Your task to perform on an android device: Open calendar and show me the second week of next month Image 0: 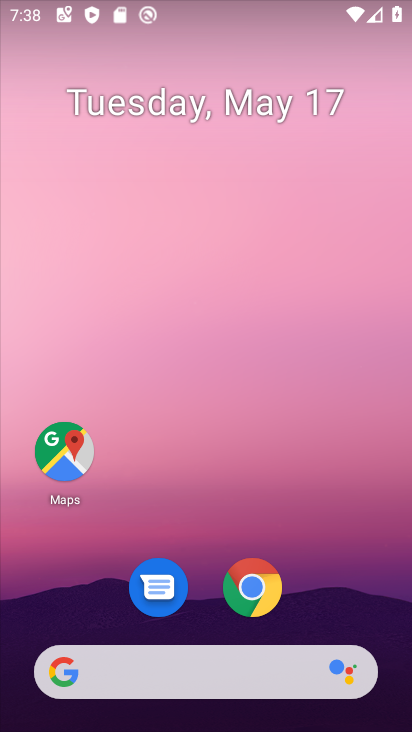
Step 0: drag from (207, 647) to (268, 148)
Your task to perform on an android device: Open calendar and show me the second week of next month Image 1: 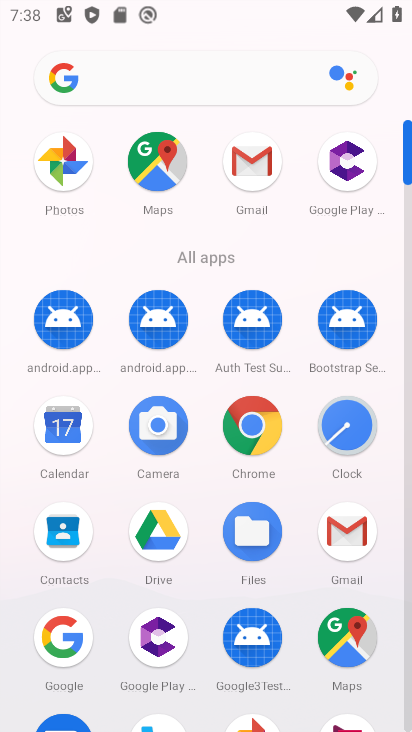
Step 1: click (53, 425)
Your task to perform on an android device: Open calendar and show me the second week of next month Image 2: 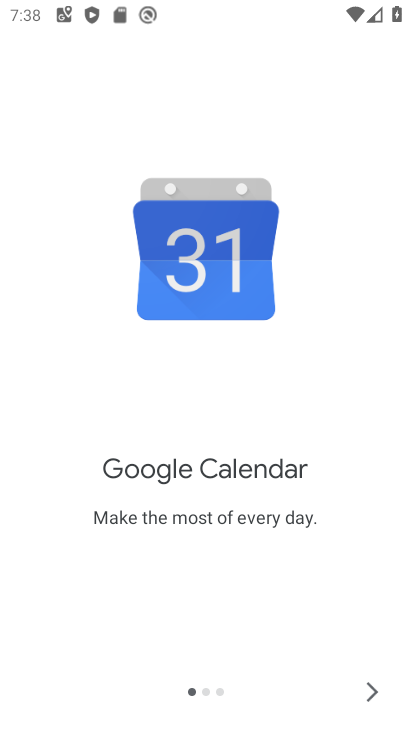
Step 2: click (368, 692)
Your task to perform on an android device: Open calendar and show me the second week of next month Image 3: 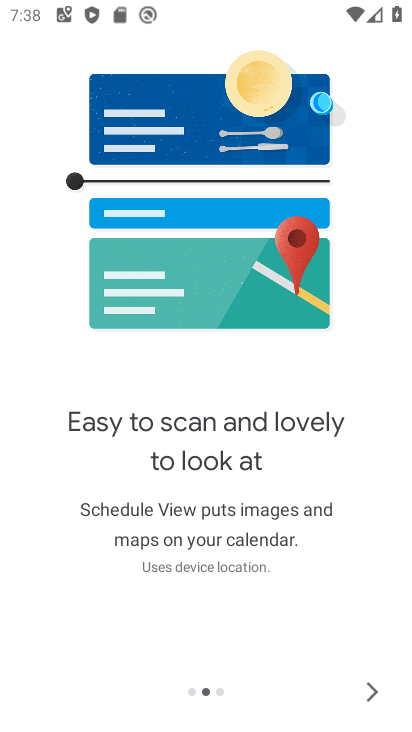
Step 3: click (368, 692)
Your task to perform on an android device: Open calendar and show me the second week of next month Image 4: 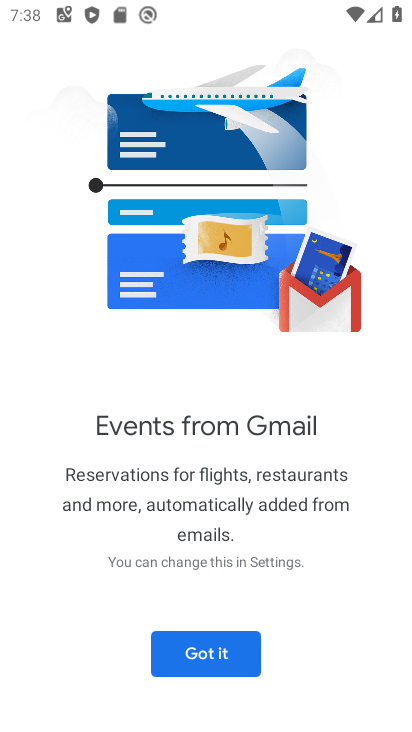
Step 4: click (226, 654)
Your task to perform on an android device: Open calendar and show me the second week of next month Image 5: 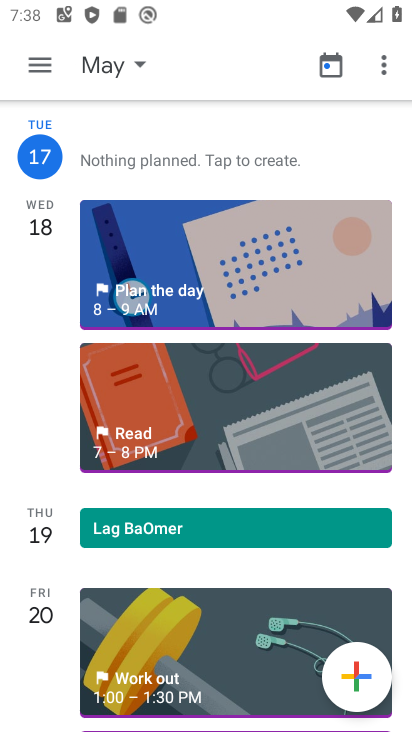
Step 5: click (133, 60)
Your task to perform on an android device: Open calendar and show me the second week of next month Image 6: 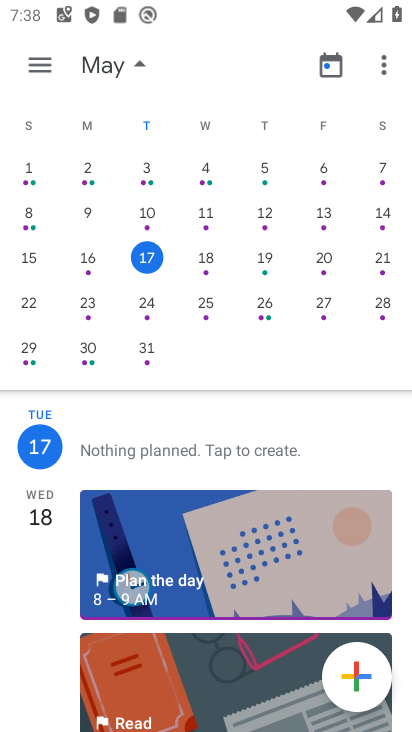
Step 6: drag from (363, 309) to (15, 318)
Your task to perform on an android device: Open calendar and show me the second week of next month Image 7: 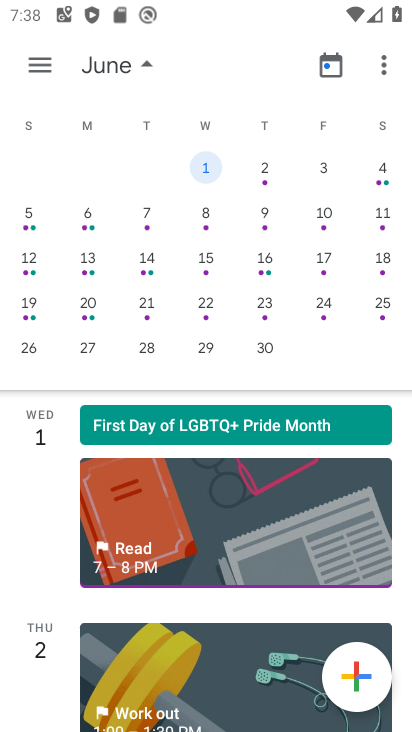
Step 7: click (21, 309)
Your task to perform on an android device: Open calendar and show me the second week of next month Image 8: 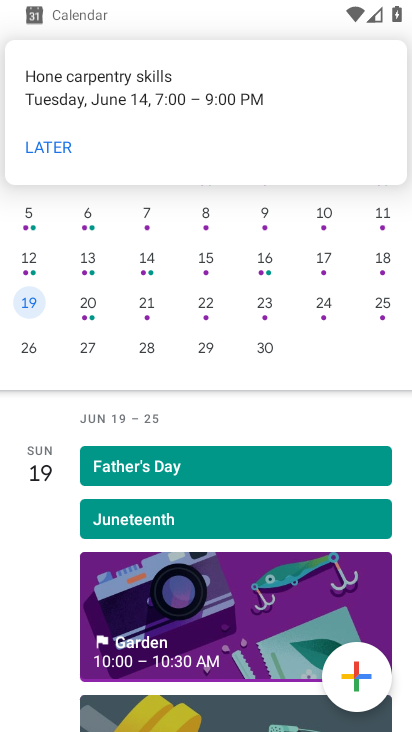
Step 8: click (30, 214)
Your task to perform on an android device: Open calendar and show me the second week of next month Image 9: 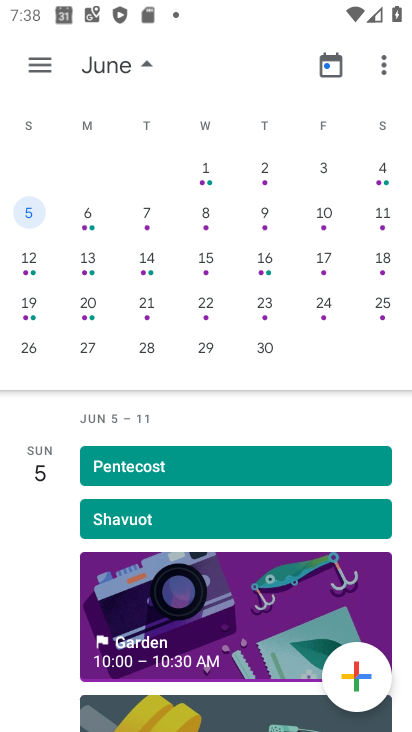
Step 9: task complete